Your task to perform on an android device: Go to Maps Image 0: 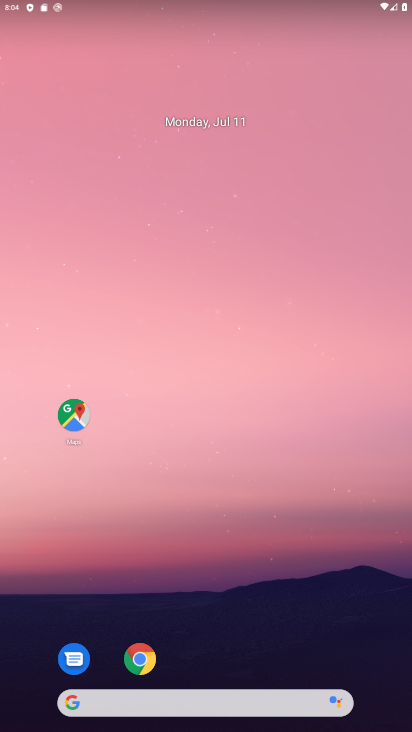
Step 0: click (60, 409)
Your task to perform on an android device: Go to Maps Image 1: 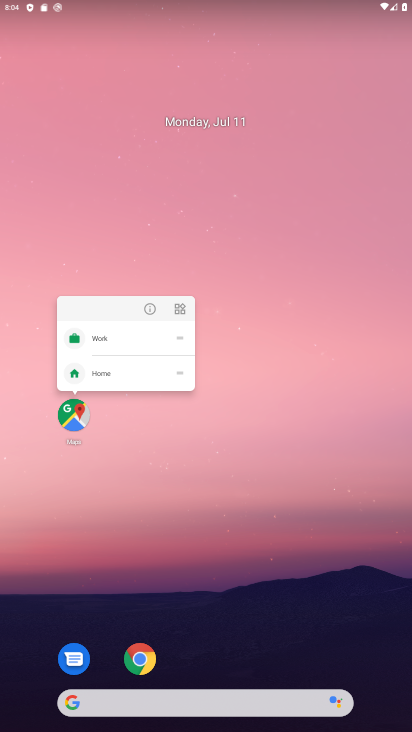
Step 1: click (62, 413)
Your task to perform on an android device: Go to Maps Image 2: 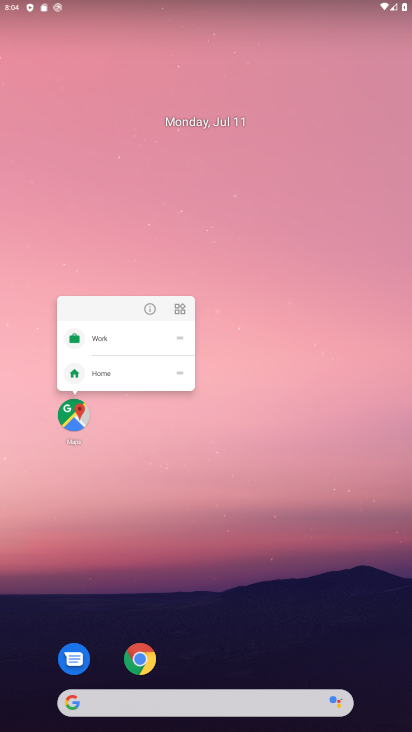
Step 2: click (79, 419)
Your task to perform on an android device: Go to Maps Image 3: 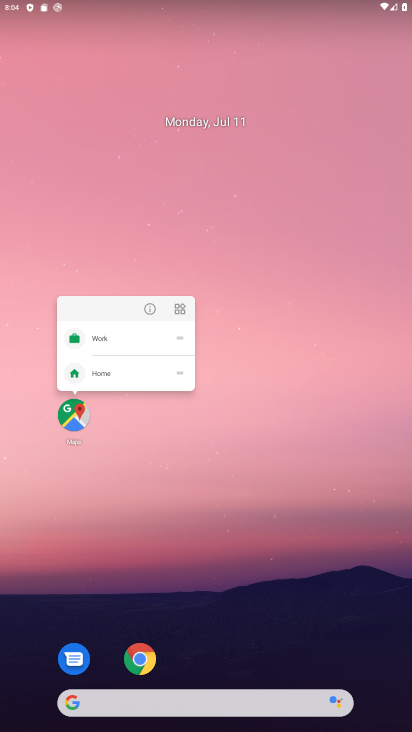
Step 3: click (68, 423)
Your task to perform on an android device: Go to Maps Image 4: 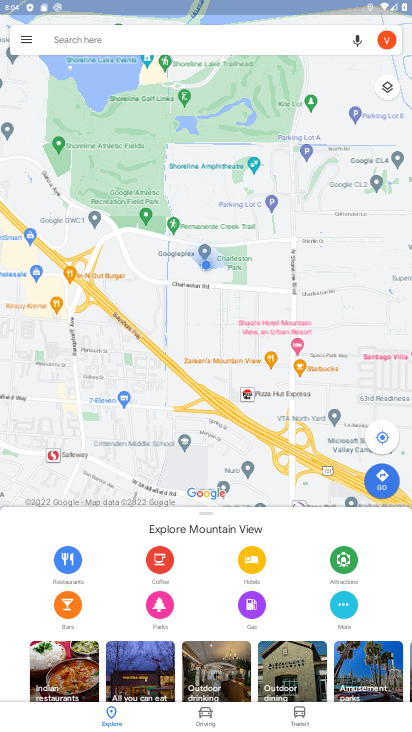
Step 4: task complete